Your task to perform on an android device: open chrome and create a bookmark for the current page Image 0: 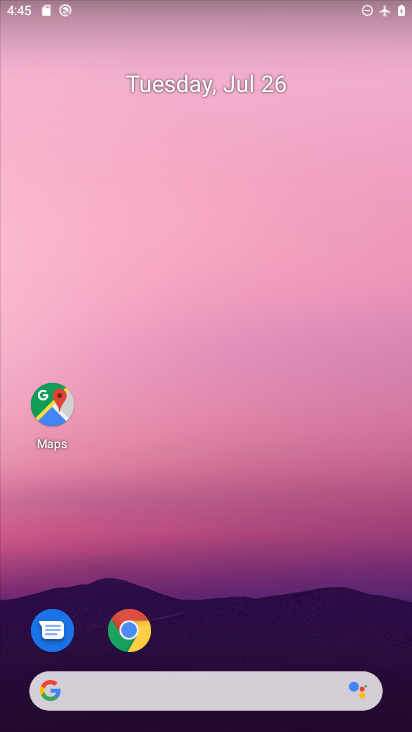
Step 0: click (139, 632)
Your task to perform on an android device: open chrome and create a bookmark for the current page Image 1: 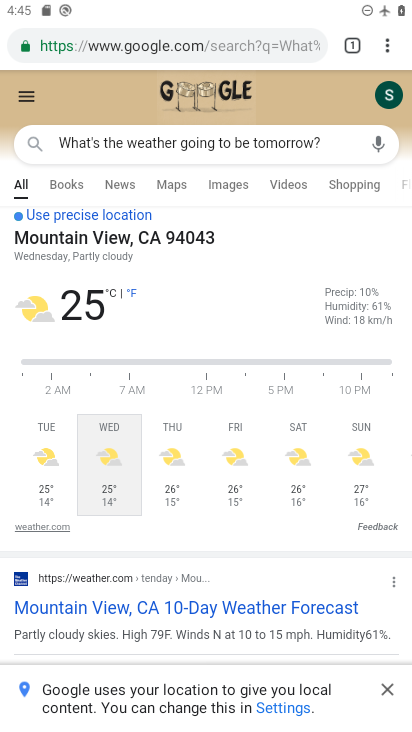
Step 1: click (389, 55)
Your task to perform on an android device: open chrome and create a bookmark for the current page Image 2: 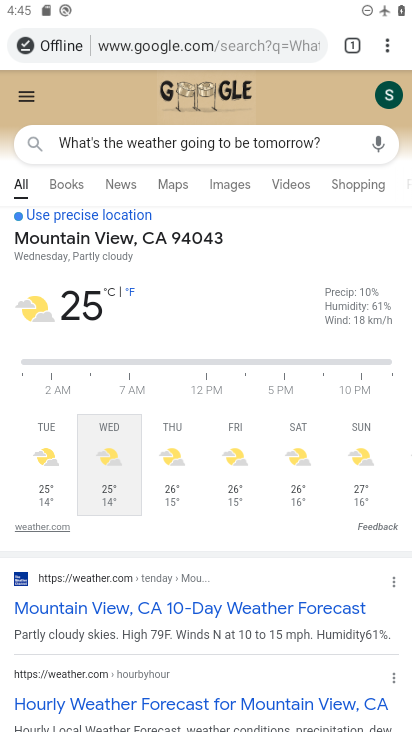
Step 2: click (382, 45)
Your task to perform on an android device: open chrome and create a bookmark for the current page Image 3: 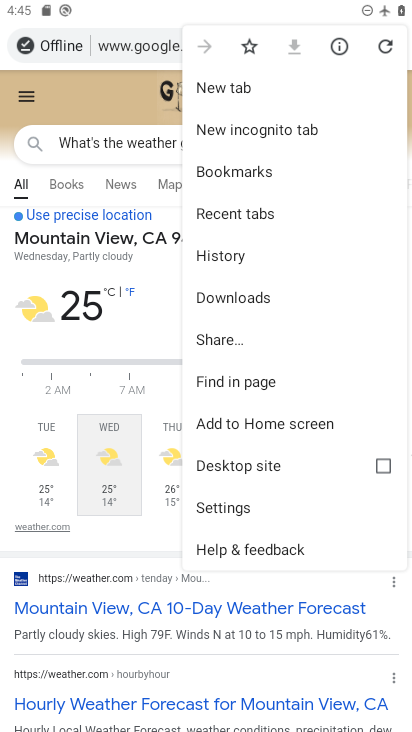
Step 3: click (256, 50)
Your task to perform on an android device: open chrome and create a bookmark for the current page Image 4: 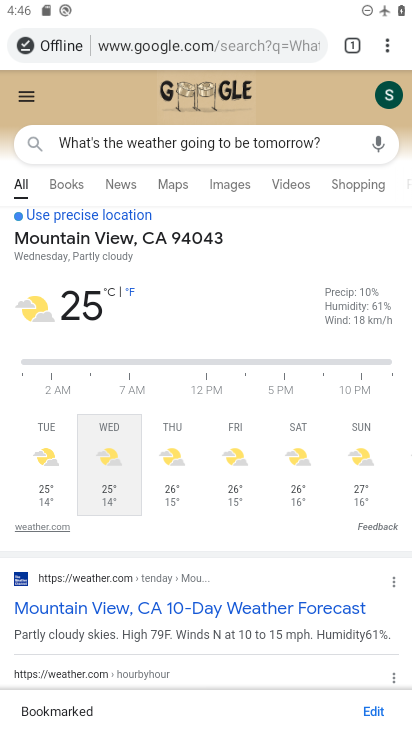
Step 4: task complete